Your task to perform on an android device: change the clock display to analog Image 0: 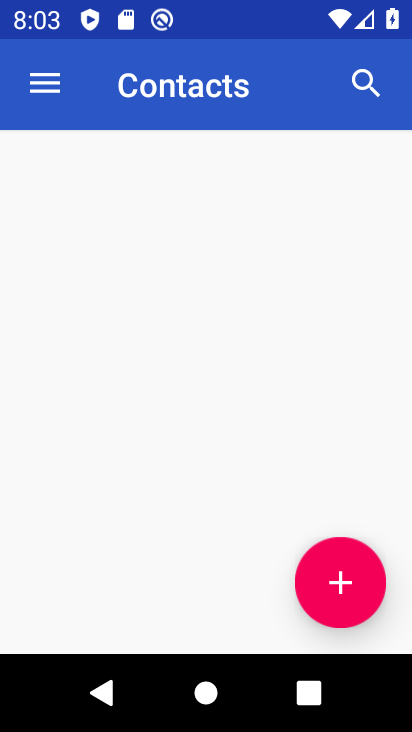
Step 0: press home button
Your task to perform on an android device: change the clock display to analog Image 1: 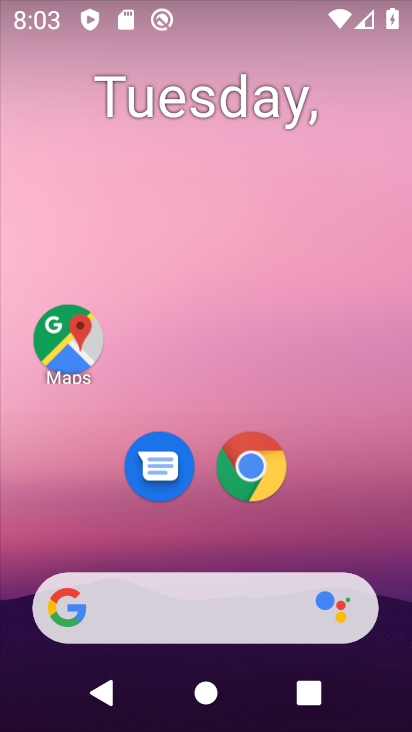
Step 1: drag from (217, 563) to (231, 223)
Your task to perform on an android device: change the clock display to analog Image 2: 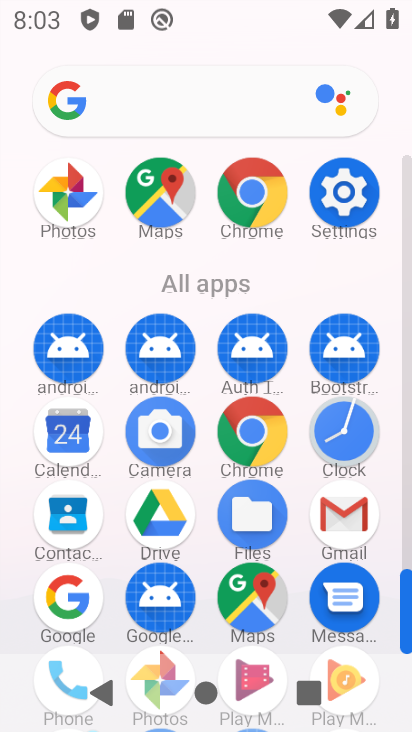
Step 2: click (345, 449)
Your task to perform on an android device: change the clock display to analog Image 3: 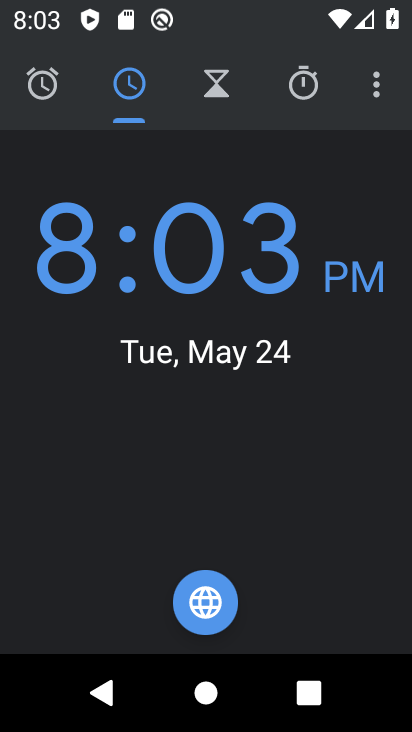
Step 3: click (367, 86)
Your task to perform on an android device: change the clock display to analog Image 4: 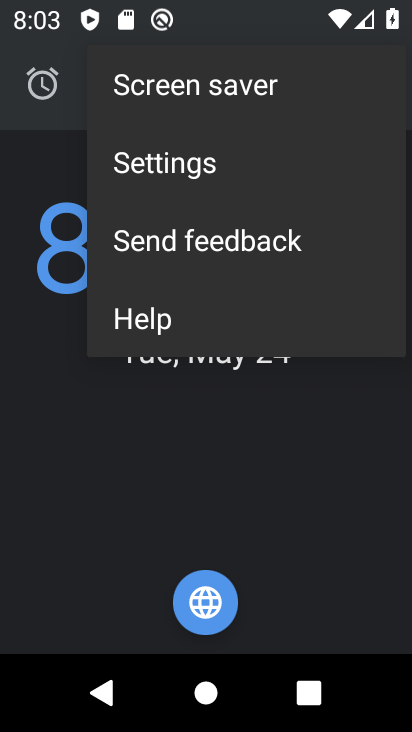
Step 4: click (216, 187)
Your task to perform on an android device: change the clock display to analog Image 5: 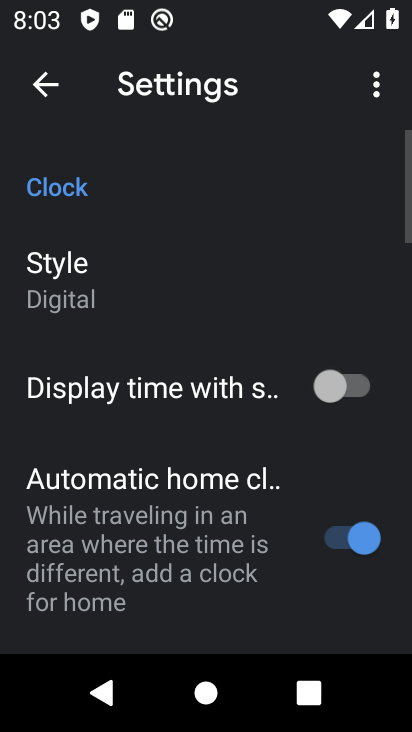
Step 5: click (64, 288)
Your task to perform on an android device: change the clock display to analog Image 6: 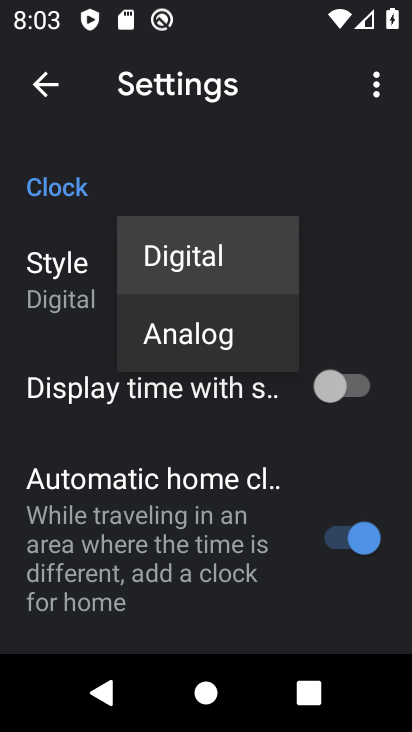
Step 6: click (169, 341)
Your task to perform on an android device: change the clock display to analog Image 7: 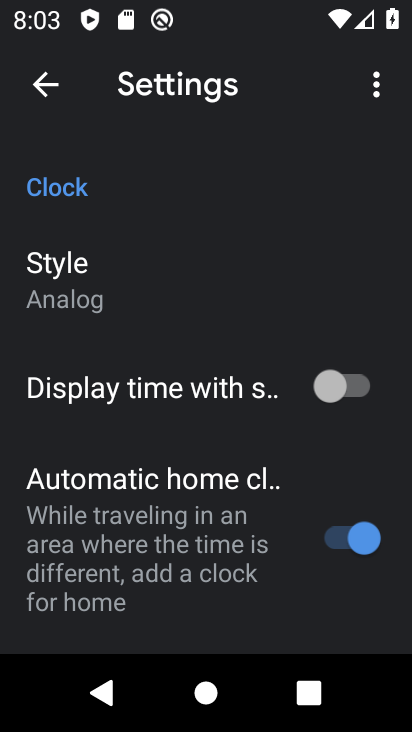
Step 7: task complete